Your task to perform on an android device: Clear the shopping cart on costco.com. Add "usb-c" to the cart on costco.com, then select checkout. Image 0: 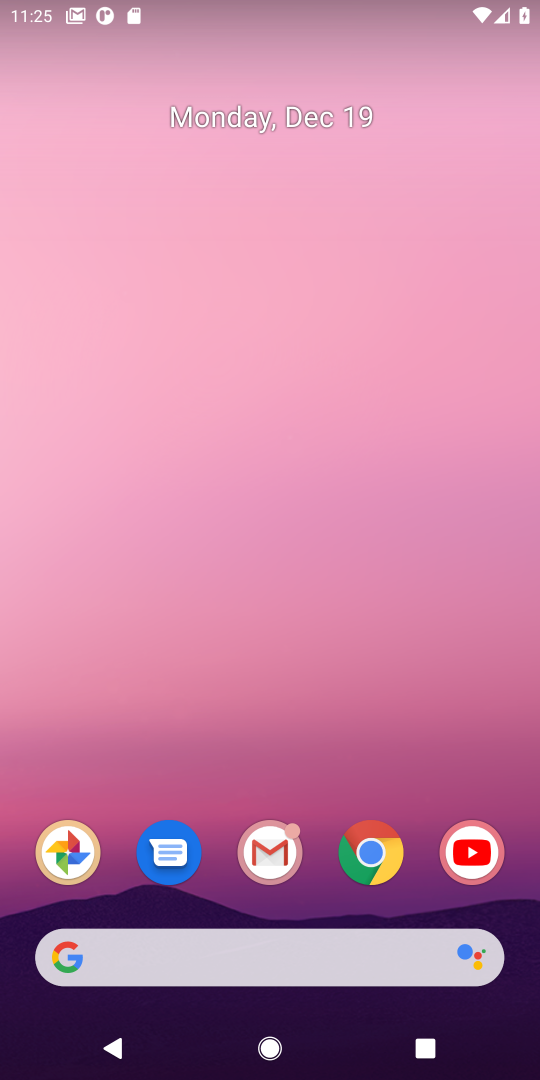
Step 0: click (365, 849)
Your task to perform on an android device: Clear the shopping cart on costco.com. Add "usb-c" to the cart on costco.com, then select checkout. Image 1: 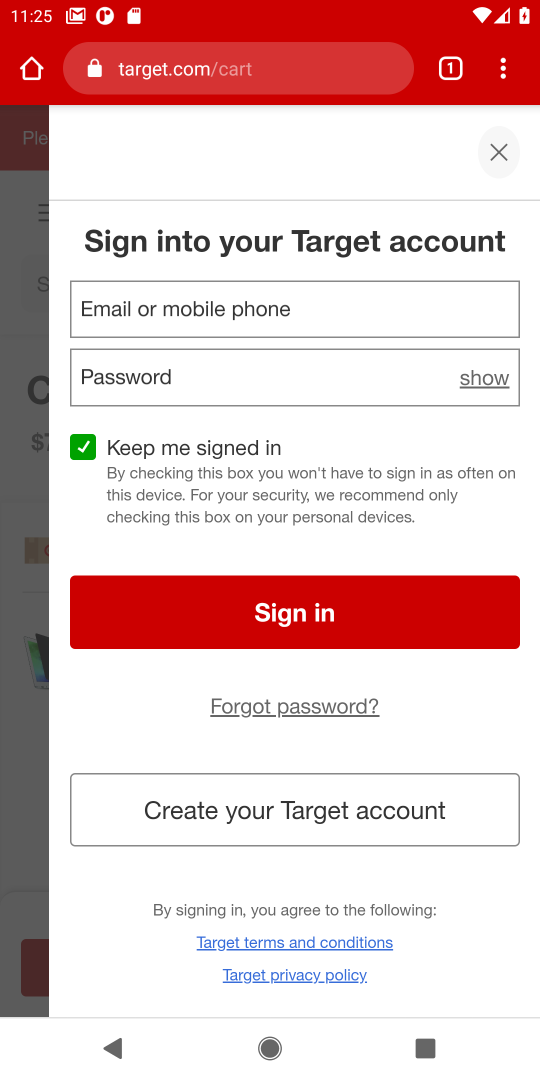
Step 1: click (171, 71)
Your task to perform on an android device: Clear the shopping cart on costco.com. Add "usb-c" to the cart on costco.com, then select checkout. Image 2: 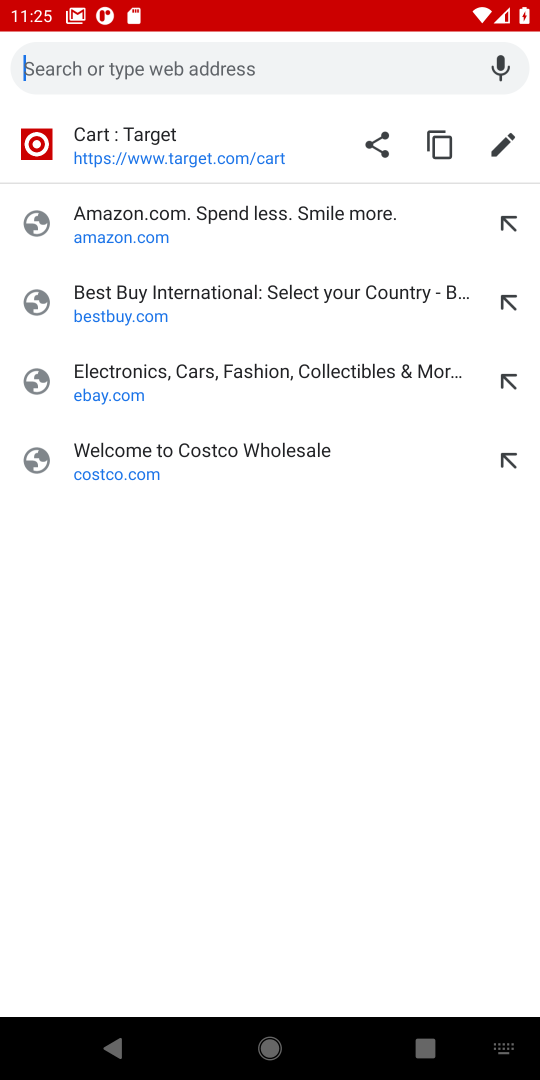
Step 2: click (96, 472)
Your task to perform on an android device: Clear the shopping cart on costco.com. Add "usb-c" to the cart on costco.com, then select checkout. Image 3: 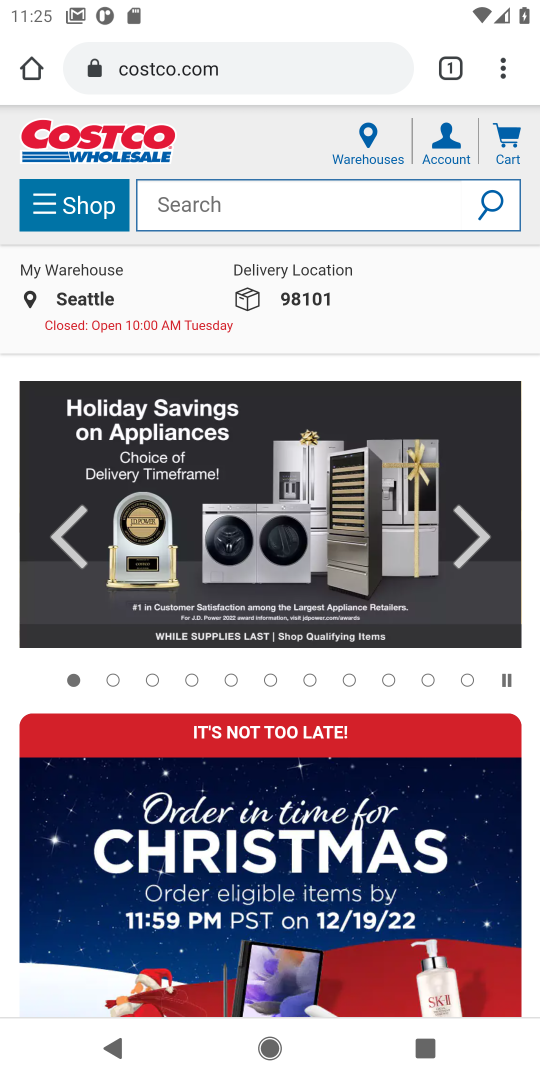
Step 3: click (503, 141)
Your task to perform on an android device: Clear the shopping cart on costco.com. Add "usb-c" to the cart on costco.com, then select checkout. Image 4: 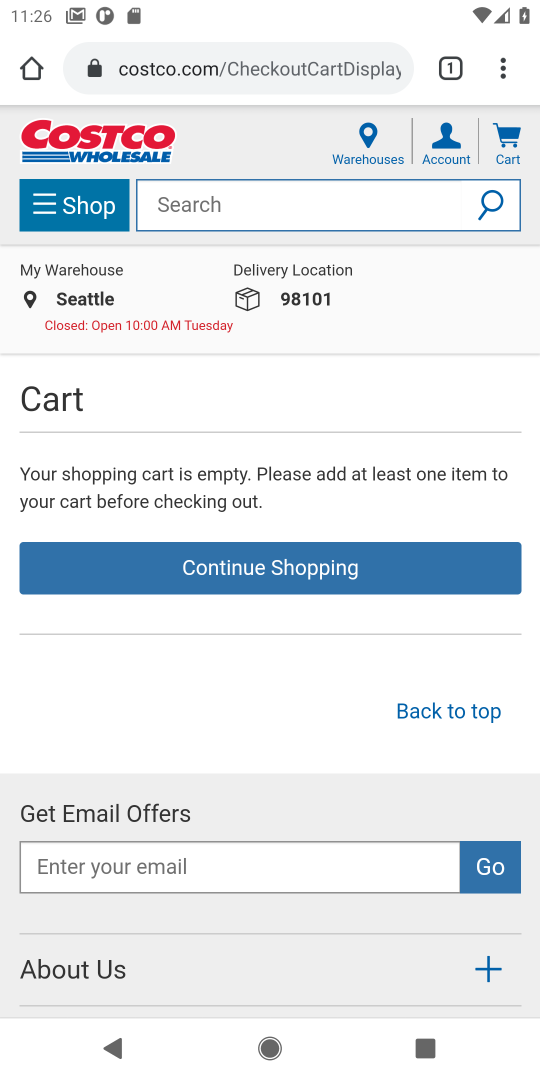
Step 4: click (220, 200)
Your task to perform on an android device: Clear the shopping cart on costco.com. Add "usb-c" to the cart on costco.com, then select checkout. Image 5: 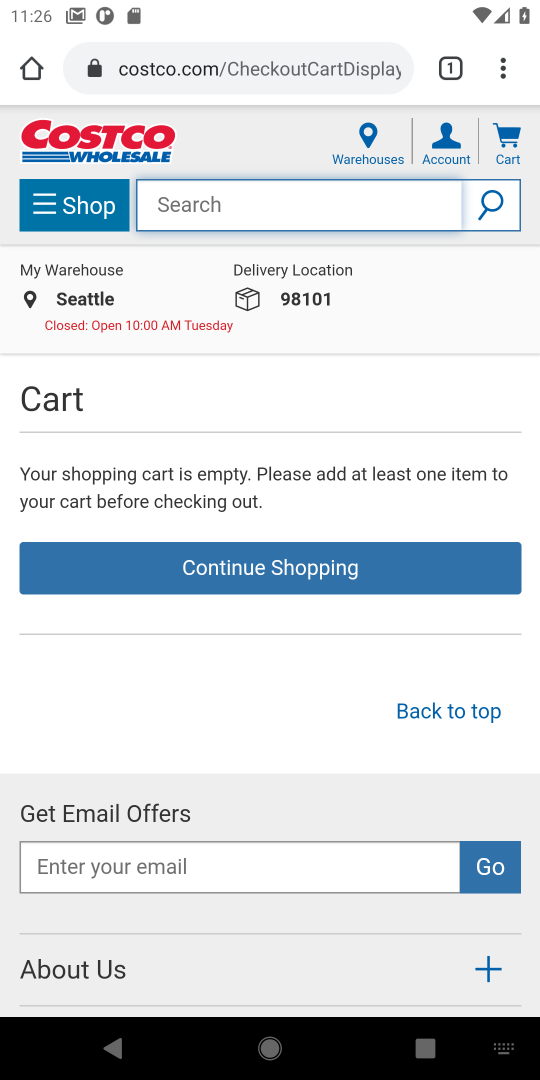
Step 5: type "usb-c"
Your task to perform on an android device: Clear the shopping cart on costco.com. Add "usb-c" to the cart on costco.com, then select checkout. Image 6: 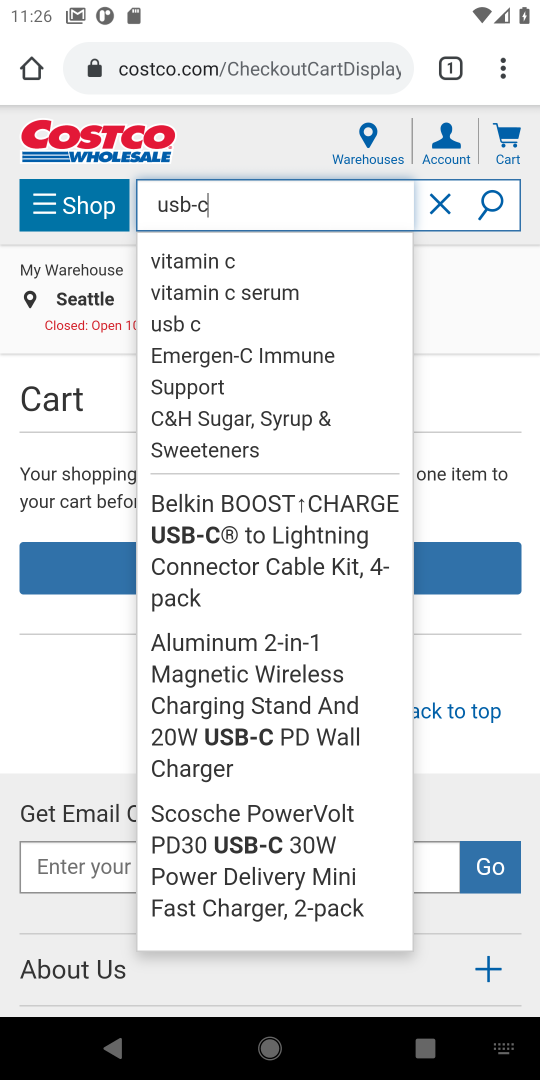
Step 6: click (496, 204)
Your task to perform on an android device: Clear the shopping cart on costco.com. Add "usb-c" to the cart on costco.com, then select checkout. Image 7: 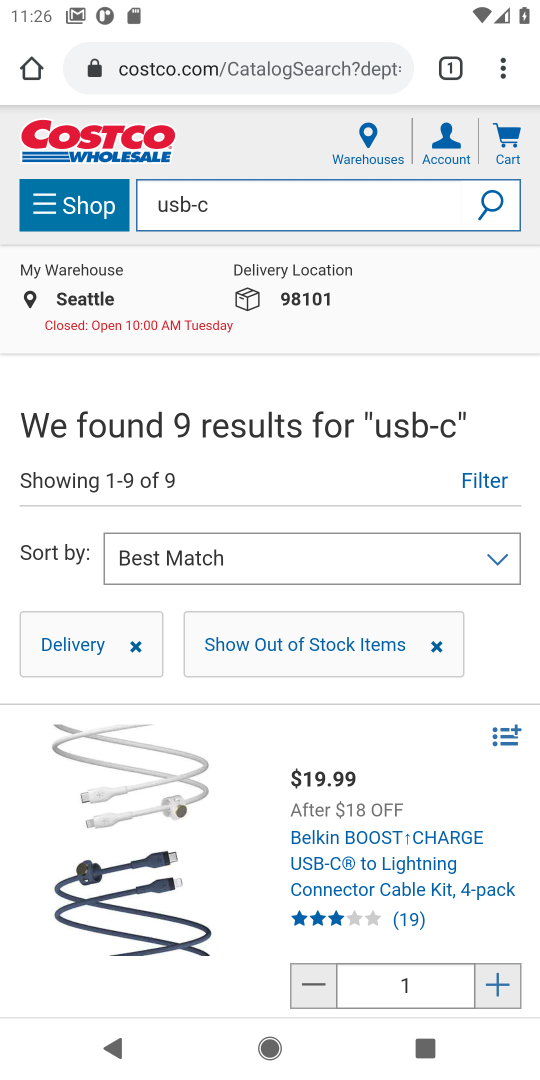
Step 7: drag from (189, 784) to (220, 445)
Your task to perform on an android device: Clear the shopping cart on costco.com. Add "usb-c" to the cart on costco.com, then select checkout. Image 8: 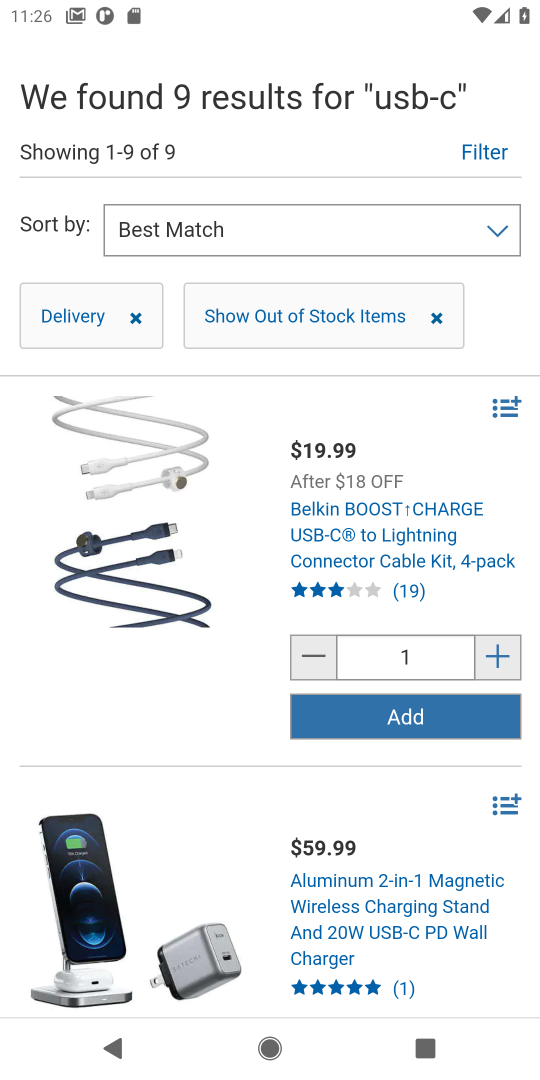
Step 8: click (386, 725)
Your task to perform on an android device: Clear the shopping cart on costco.com. Add "usb-c" to the cart on costco.com, then select checkout. Image 9: 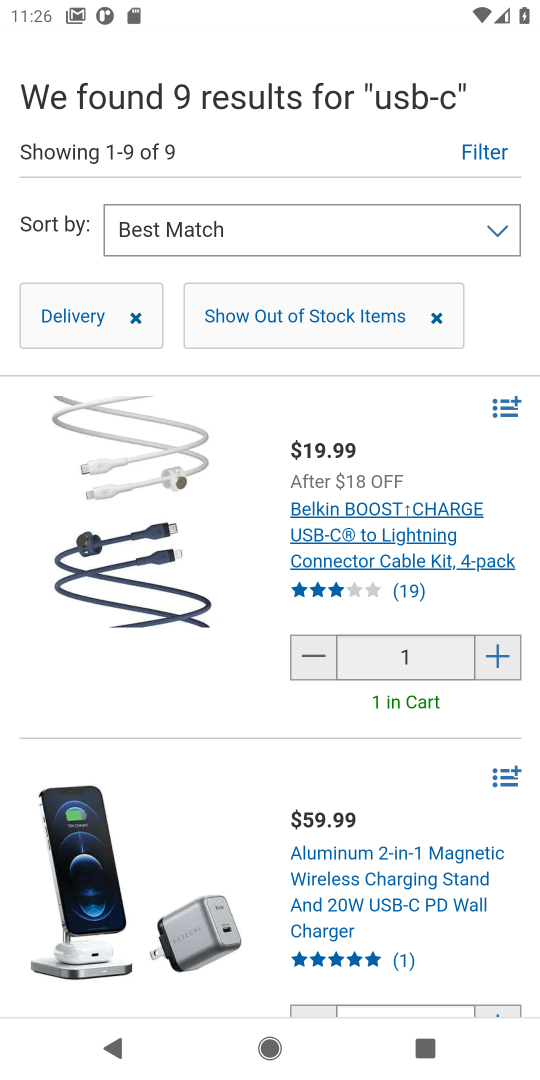
Step 9: drag from (231, 298) to (219, 734)
Your task to perform on an android device: Clear the shopping cart on costco.com. Add "usb-c" to the cart on costco.com, then select checkout. Image 10: 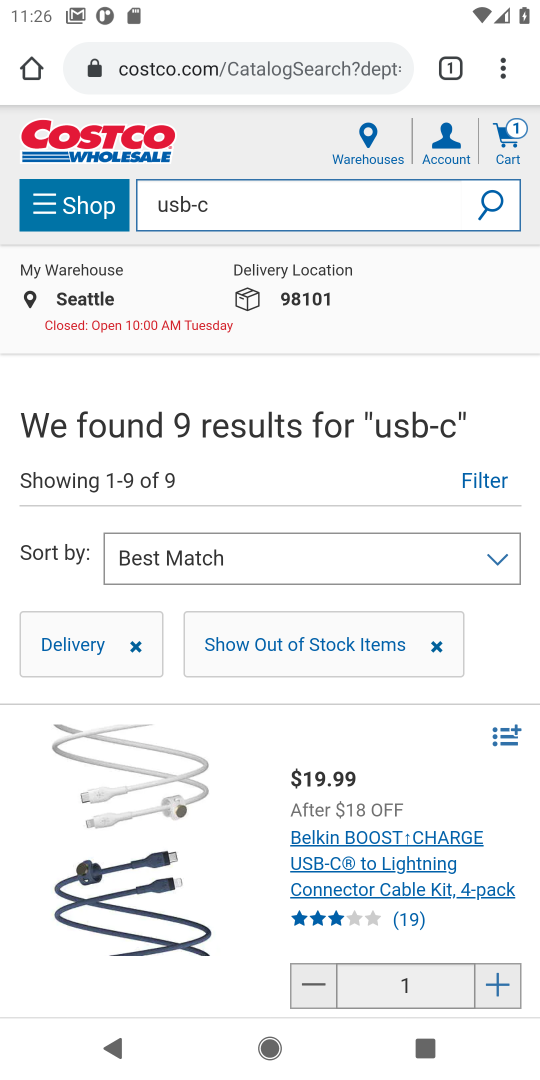
Step 10: click (501, 152)
Your task to perform on an android device: Clear the shopping cart on costco.com. Add "usb-c" to the cart on costco.com, then select checkout. Image 11: 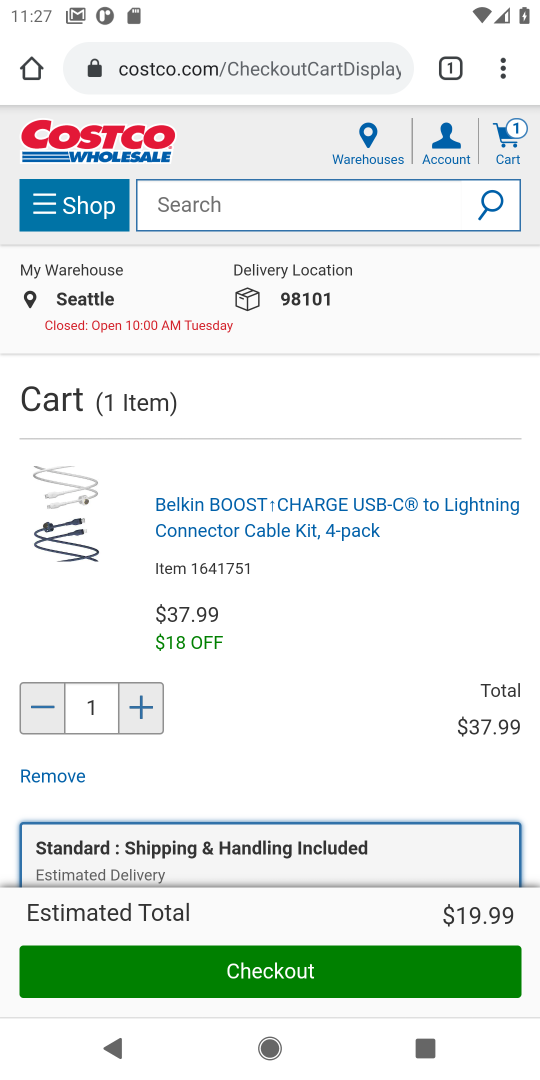
Step 11: click (254, 968)
Your task to perform on an android device: Clear the shopping cart on costco.com. Add "usb-c" to the cart on costco.com, then select checkout. Image 12: 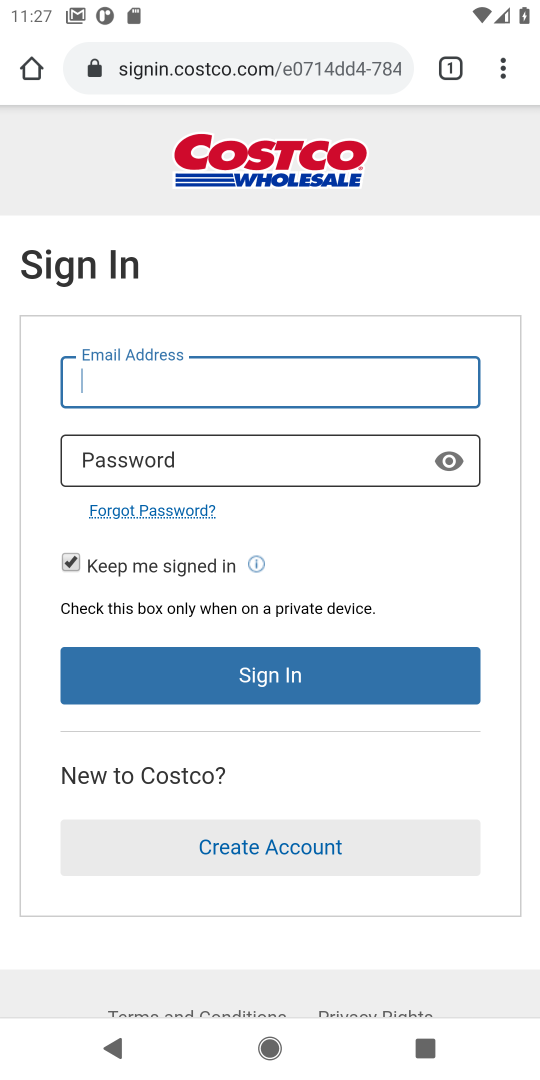
Step 12: task complete